Your task to perform on an android device: change timer sound Image 0: 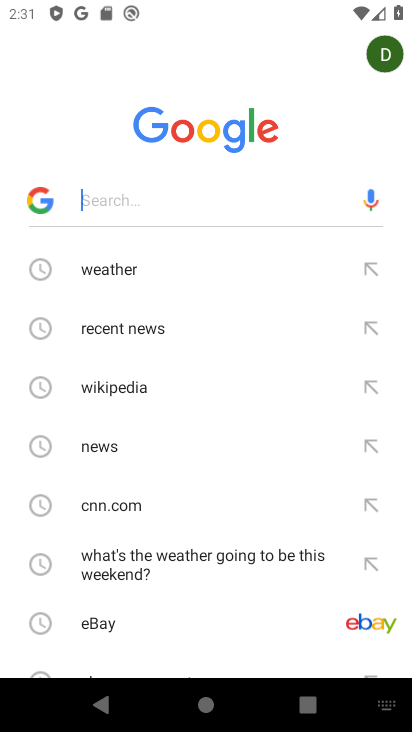
Step 0: press home button
Your task to perform on an android device: change timer sound Image 1: 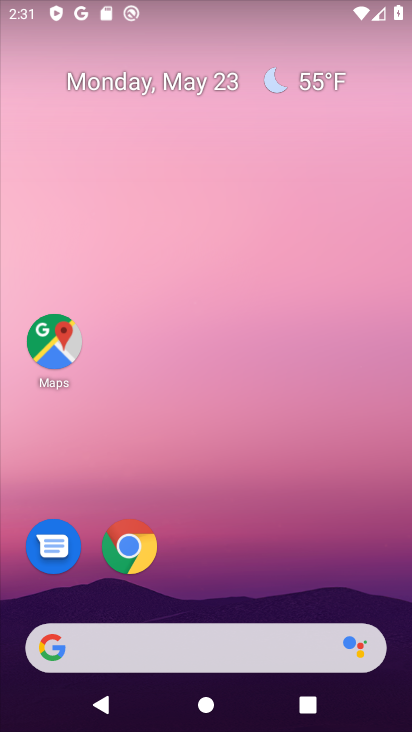
Step 1: drag from (248, 481) to (265, 172)
Your task to perform on an android device: change timer sound Image 2: 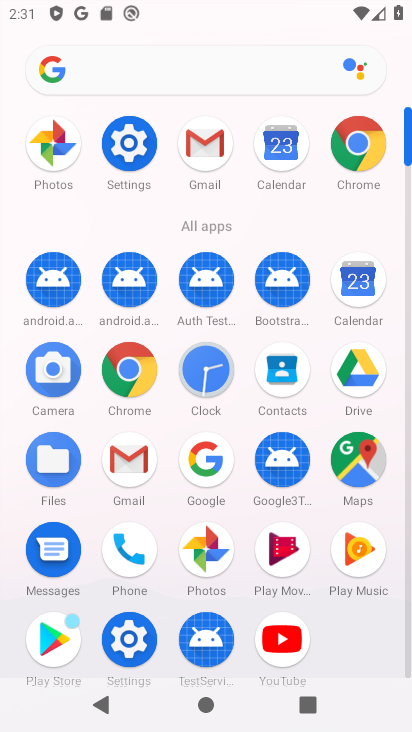
Step 2: click (210, 376)
Your task to perform on an android device: change timer sound Image 3: 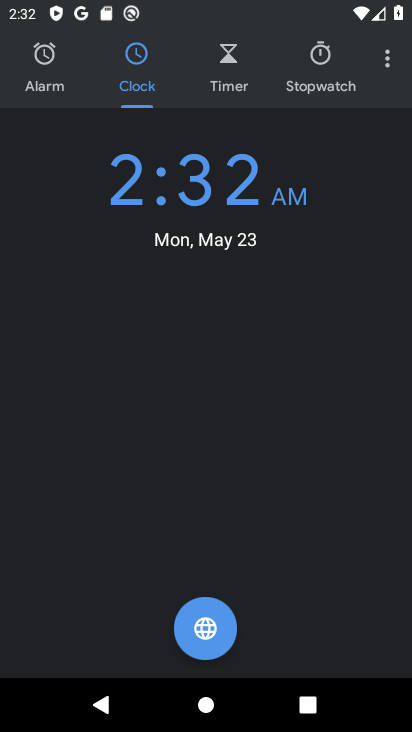
Step 3: drag from (395, 69) to (273, 116)
Your task to perform on an android device: change timer sound Image 4: 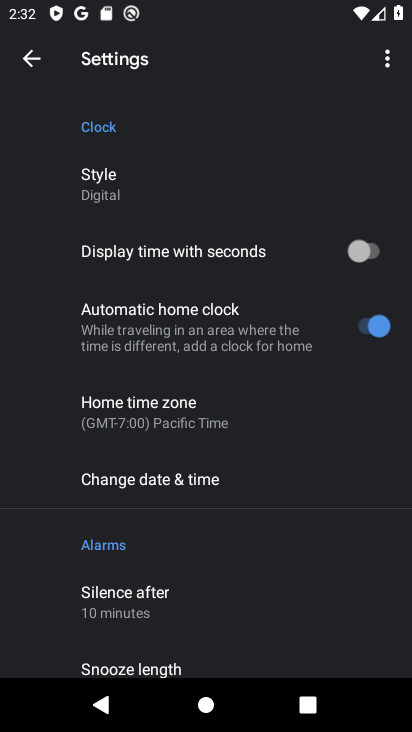
Step 4: drag from (195, 605) to (197, 266)
Your task to perform on an android device: change timer sound Image 5: 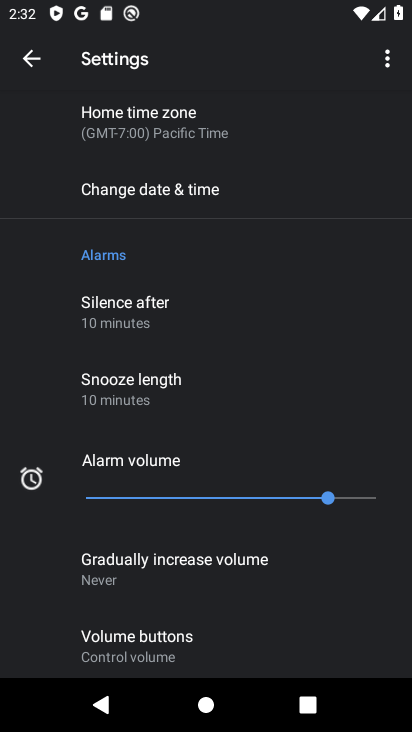
Step 5: drag from (199, 538) to (198, 314)
Your task to perform on an android device: change timer sound Image 6: 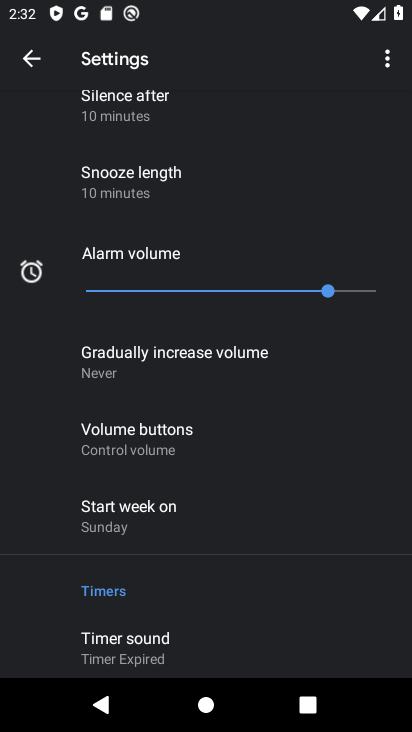
Step 6: click (166, 646)
Your task to perform on an android device: change timer sound Image 7: 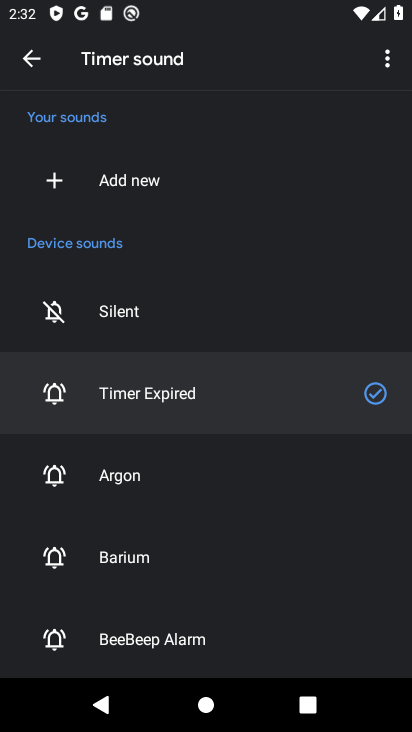
Step 7: click (144, 484)
Your task to perform on an android device: change timer sound Image 8: 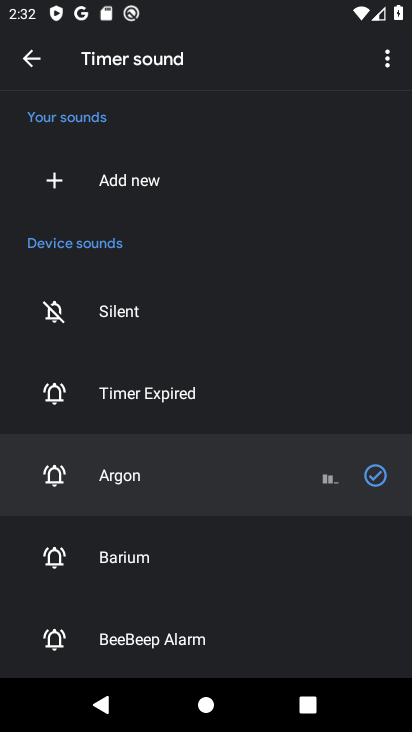
Step 8: task complete